Your task to perform on an android device: toggle notification dots Image 0: 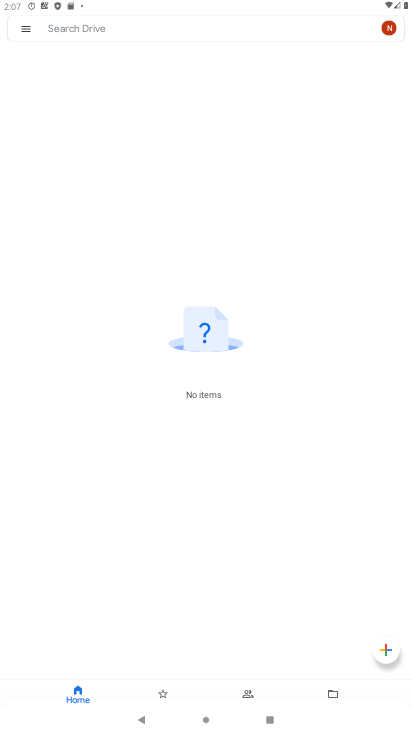
Step 0: press home button
Your task to perform on an android device: toggle notification dots Image 1: 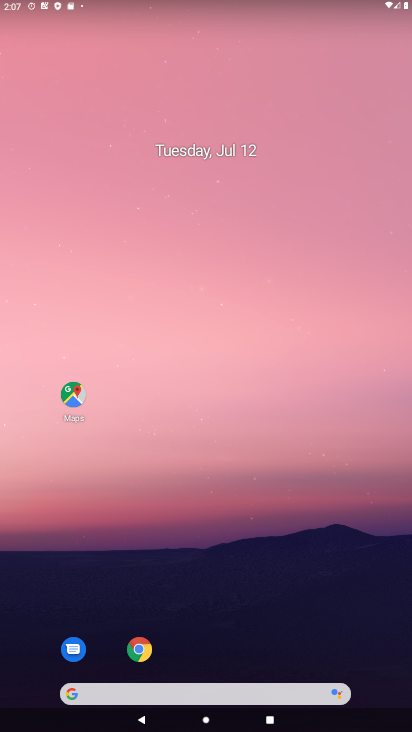
Step 1: drag from (369, 664) to (201, 10)
Your task to perform on an android device: toggle notification dots Image 2: 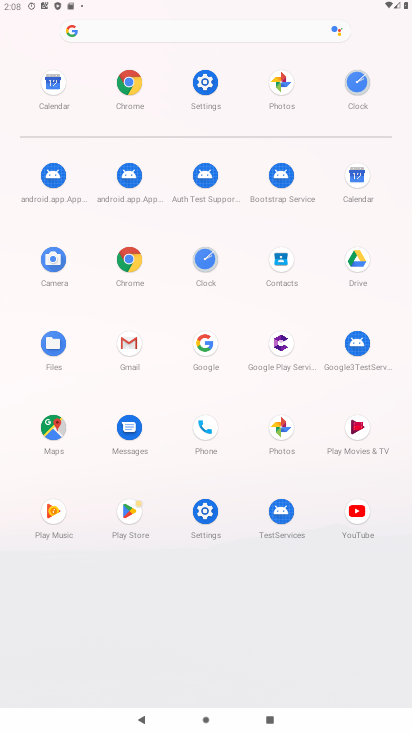
Step 2: click (209, 518)
Your task to perform on an android device: toggle notification dots Image 3: 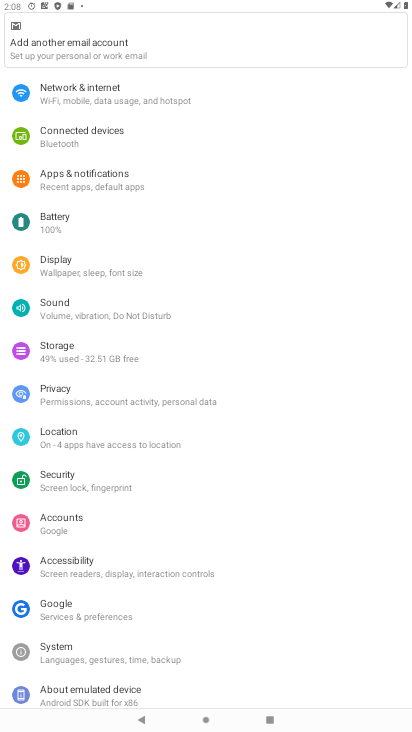
Step 3: click (139, 179)
Your task to perform on an android device: toggle notification dots Image 4: 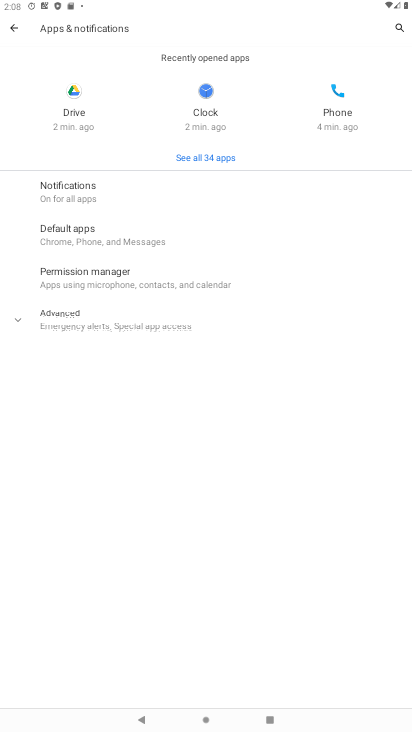
Step 4: click (80, 190)
Your task to perform on an android device: toggle notification dots Image 5: 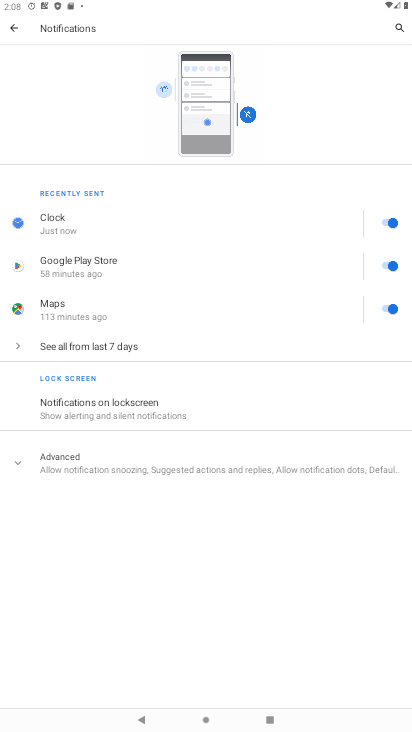
Step 5: click (45, 470)
Your task to perform on an android device: toggle notification dots Image 6: 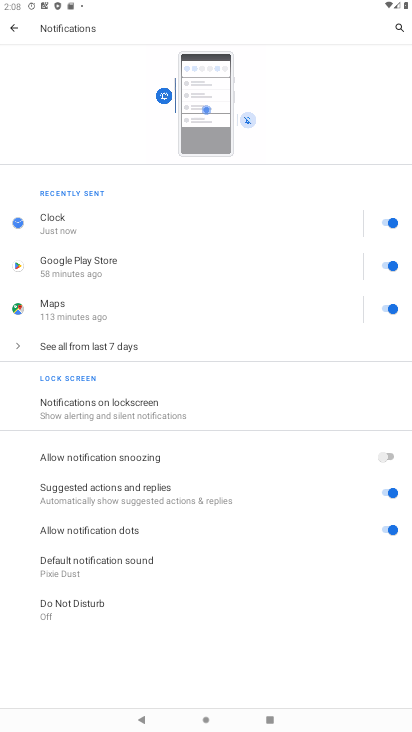
Step 6: click (137, 527)
Your task to perform on an android device: toggle notification dots Image 7: 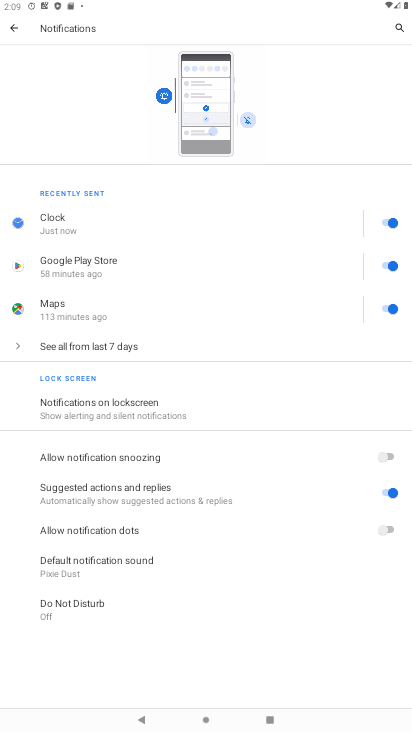
Step 7: task complete